Your task to perform on an android device: empty trash in google photos Image 0: 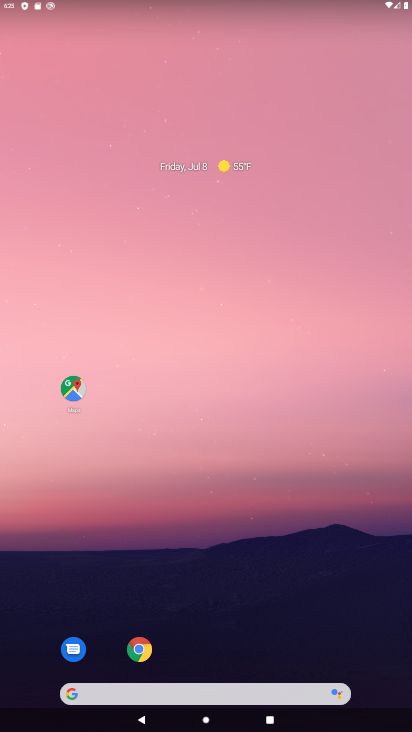
Step 0: drag from (327, 677) to (345, 88)
Your task to perform on an android device: empty trash in google photos Image 1: 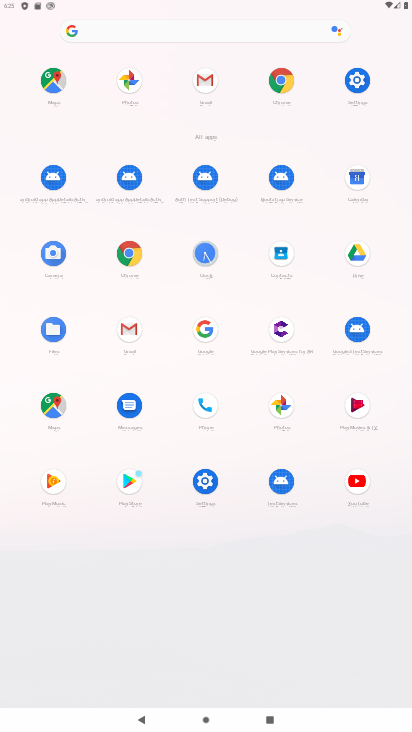
Step 1: click (288, 404)
Your task to perform on an android device: empty trash in google photos Image 2: 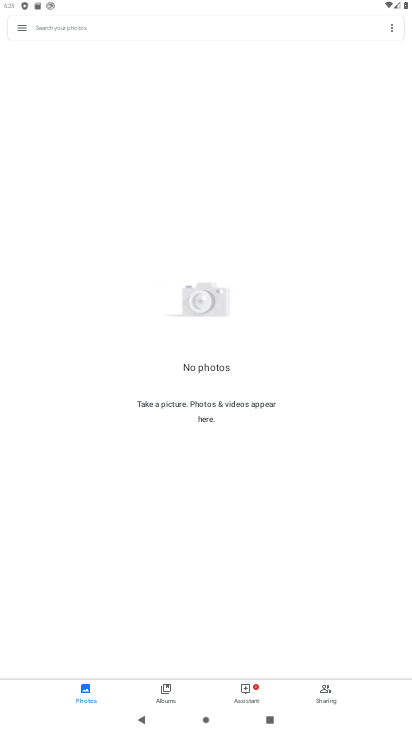
Step 2: click (19, 29)
Your task to perform on an android device: empty trash in google photos Image 3: 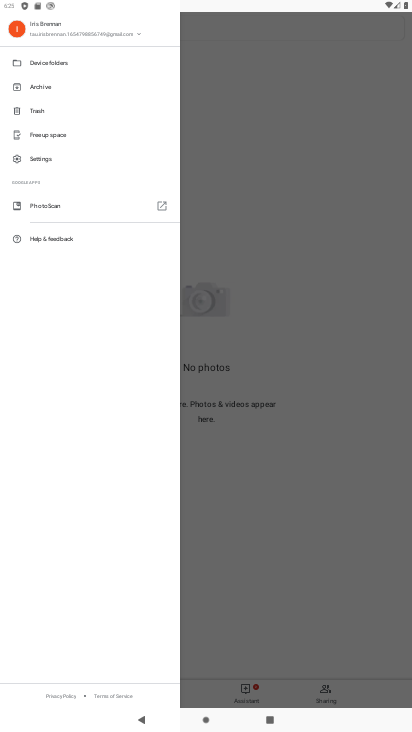
Step 3: click (53, 108)
Your task to perform on an android device: empty trash in google photos Image 4: 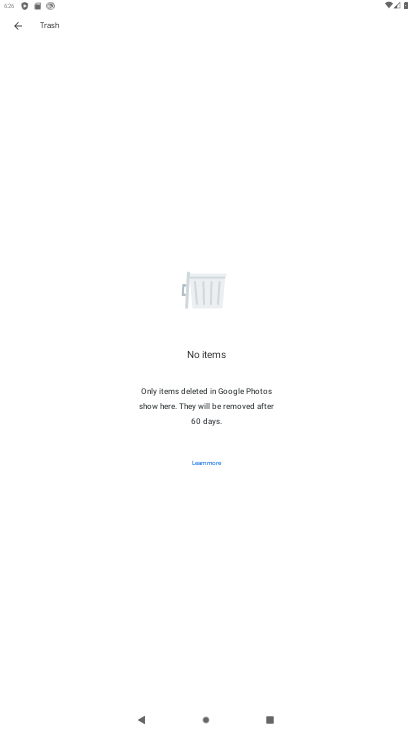
Step 4: task complete